Your task to perform on an android device: Toggle the flashlight Image 0: 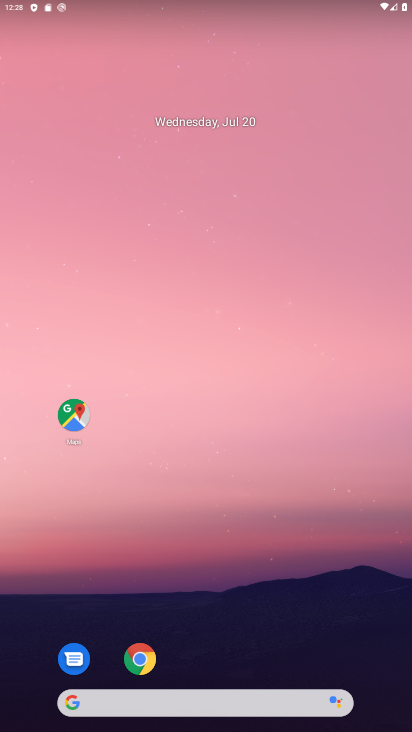
Step 0: drag from (367, 655) to (213, 81)
Your task to perform on an android device: Toggle the flashlight Image 1: 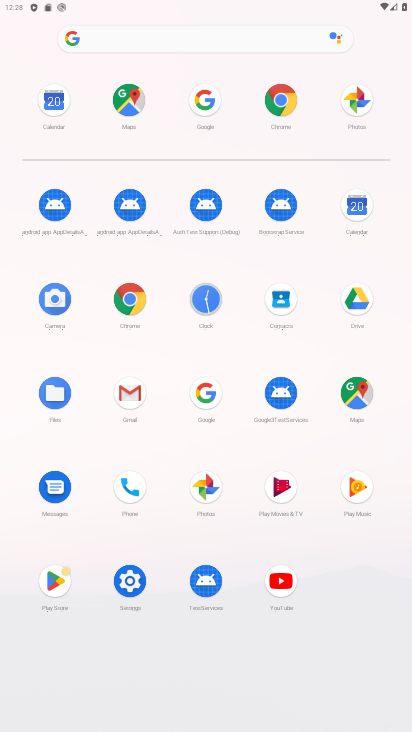
Step 1: click (116, 601)
Your task to perform on an android device: Toggle the flashlight Image 2: 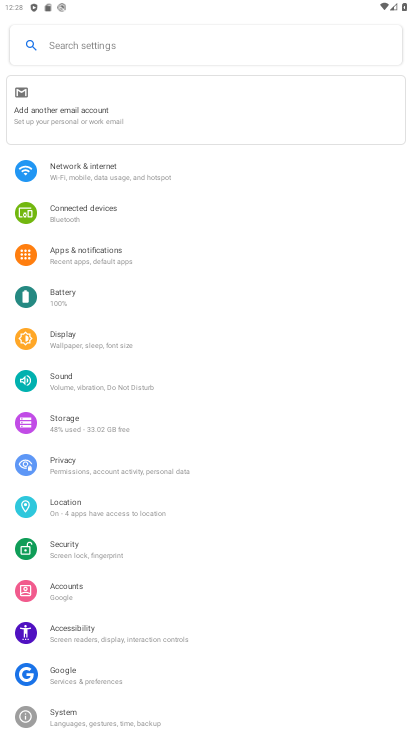
Step 2: task complete